Your task to perform on an android device: change text size in settings app Image 0: 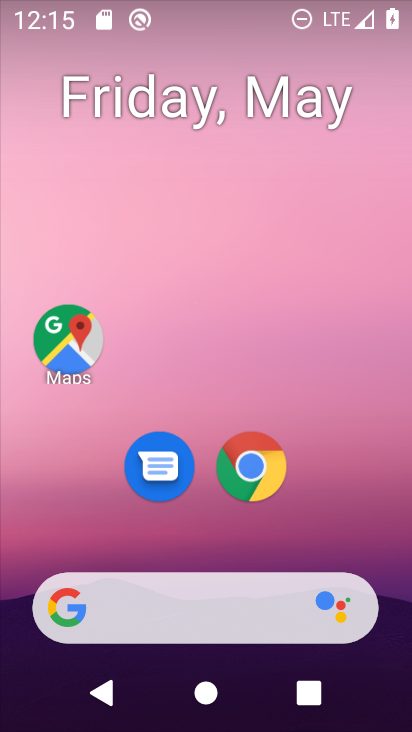
Step 0: drag from (265, 629) to (309, 49)
Your task to perform on an android device: change text size in settings app Image 1: 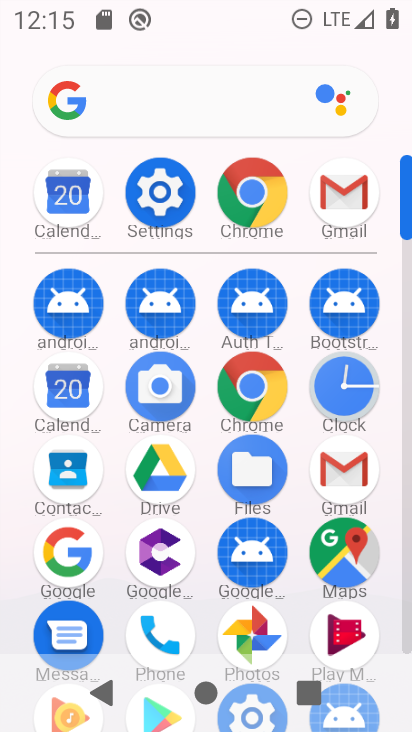
Step 1: click (152, 193)
Your task to perform on an android device: change text size in settings app Image 2: 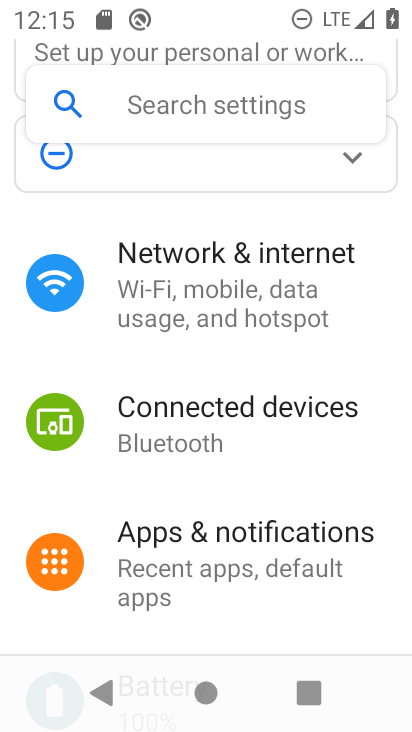
Step 2: drag from (261, 581) to (273, 106)
Your task to perform on an android device: change text size in settings app Image 3: 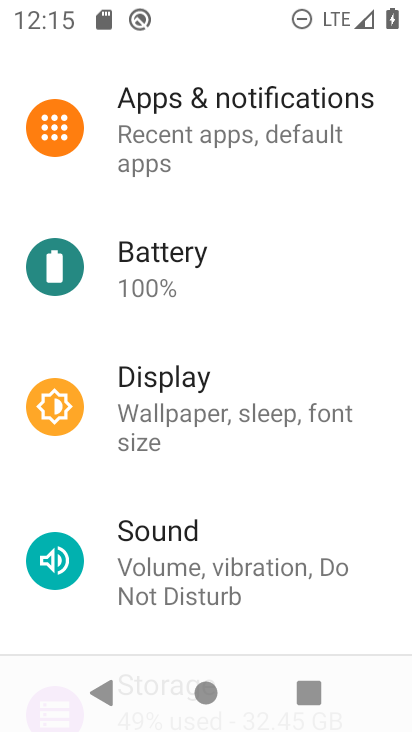
Step 3: drag from (239, 588) to (197, 103)
Your task to perform on an android device: change text size in settings app Image 4: 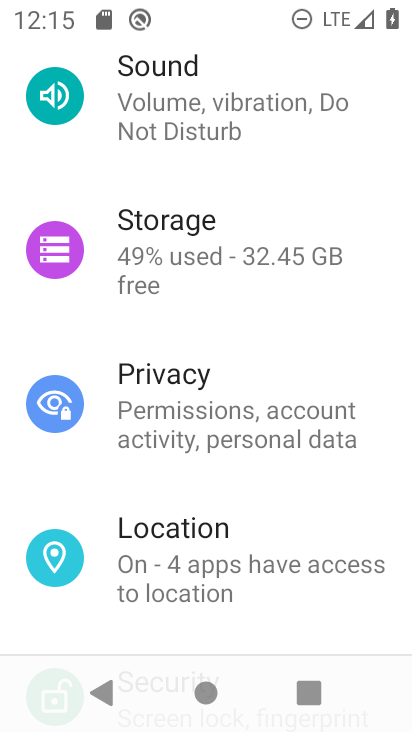
Step 4: drag from (233, 629) to (246, 164)
Your task to perform on an android device: change text size in settings app Image 5: 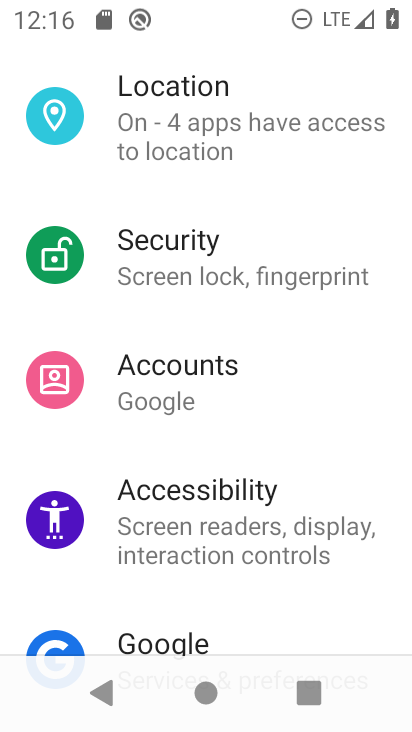
Step 5: drag from (212, 577) to (273, 112)
Your task to perform on an android device: change text size in settings app Image 6: 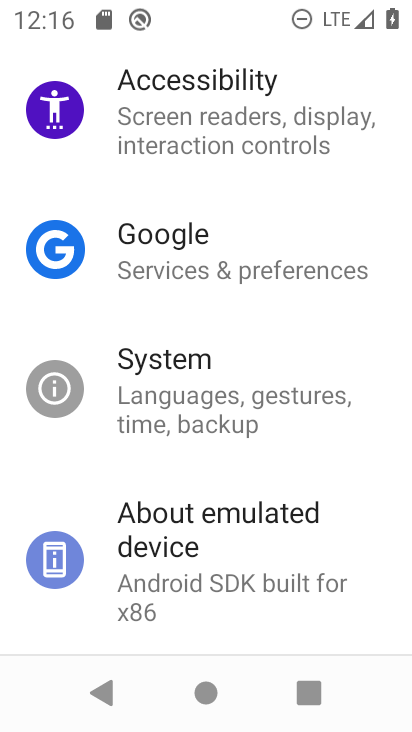
Step 6: click (246, 129)
Your task to perform on an android device: change text size in settings app Image 7: 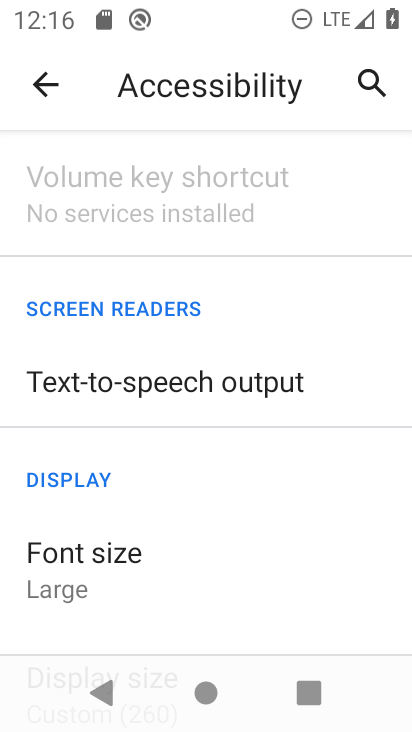
Step 7: click (181, 573)
Your task to perform on an android device: change text size in settings app Image 8: 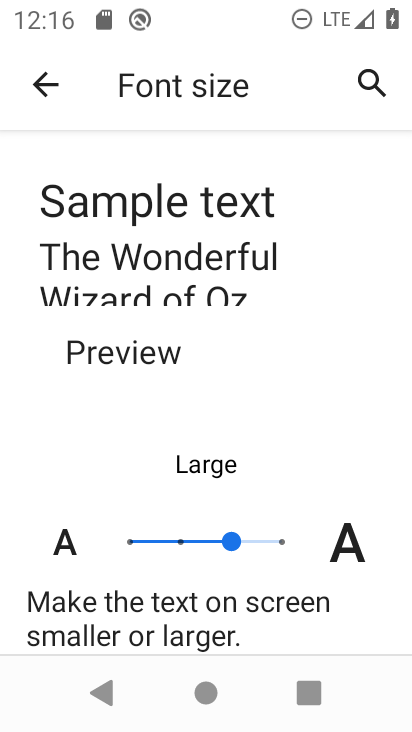
Step 8: click (187, 539)
Your task to perform on an android device: change text size in settings app Image 9: 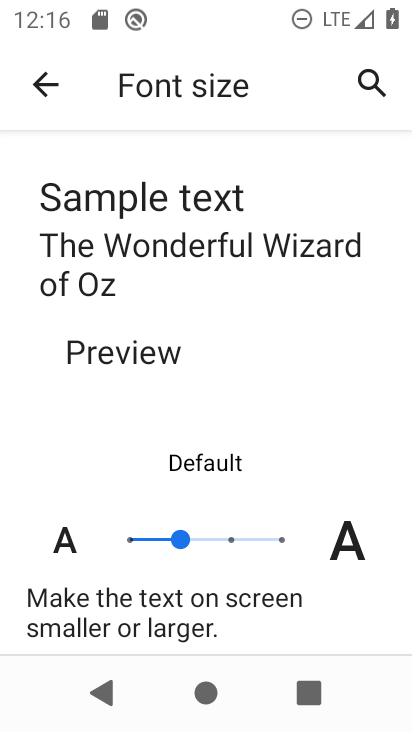
Step 9: task complete